Your task to perform on an android device: check battery use Image 0: 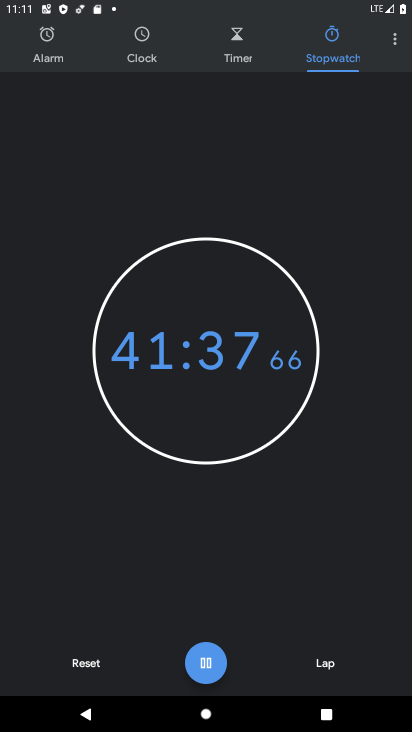
Step 0: press home button
Your task to perform on an android device: check battery use Image 1: 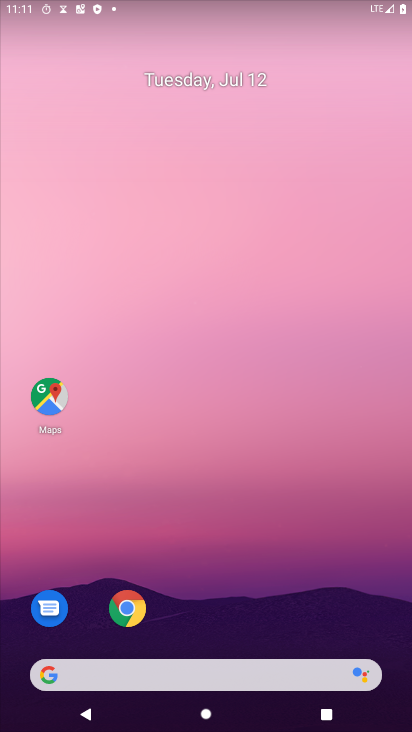
Step 1: drag from (303, 609) to (318, 108)
Your task to perform on an android device: check battery use Image 2: 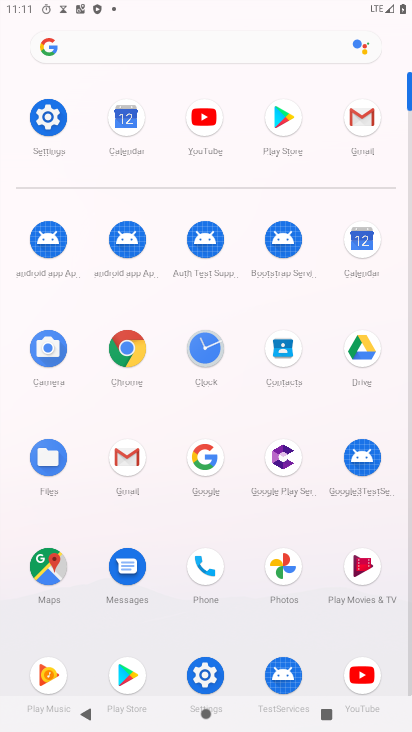
Step 2: click (197, 661)
Your task to perform on an android device: check battery use Image 3: 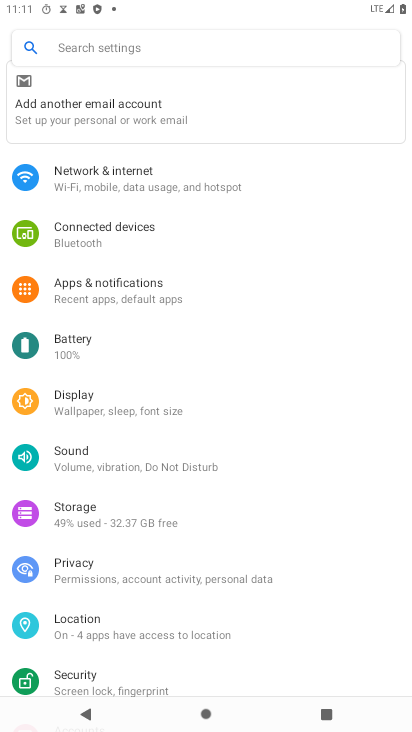
Step 3: click (124, 342)
Your task to perform on an android device: check battery use Image 4: 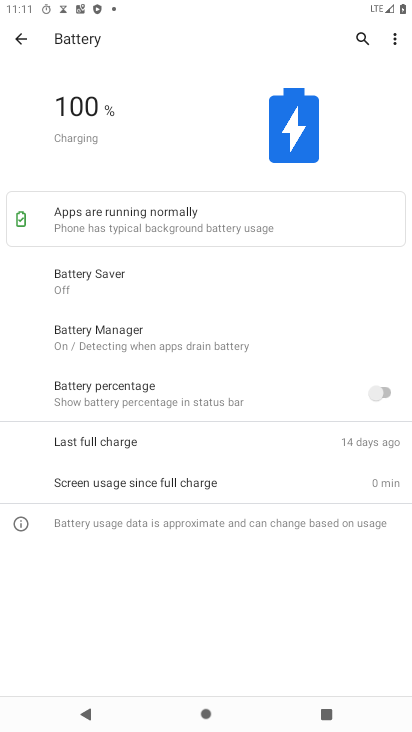
Step 4: click (393, 43)
Your task to perform on an android device: check battery use Image 5: 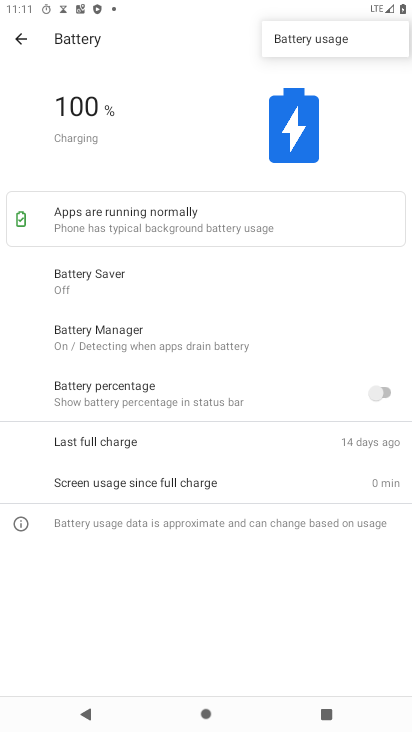
Step 5: click (339, 43)
Your task to perform on an android device: check battery use Image 6: 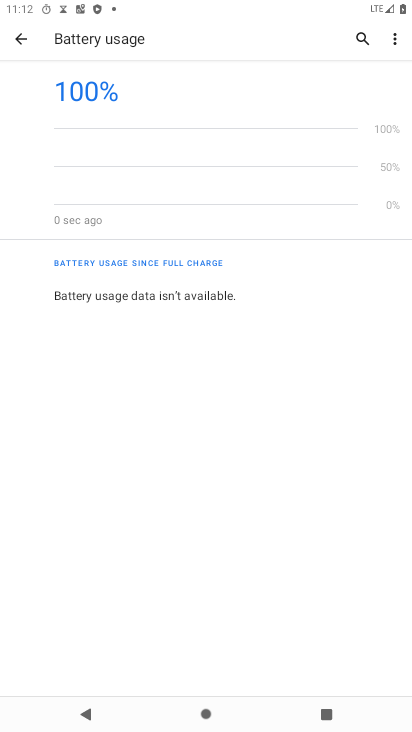
Step 6: task complete